Your task to perform on an android device: Go to internet settings Image 0: 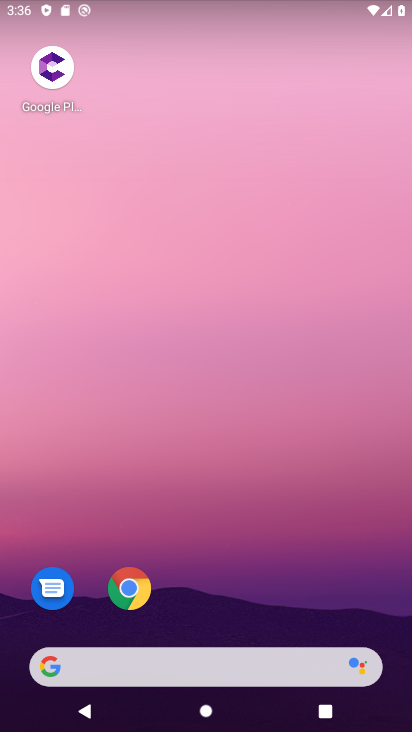
Step 0: drag from (311, 626) to (259, 77)
Your task to perform on an android device: Go to internet settings Image 1: 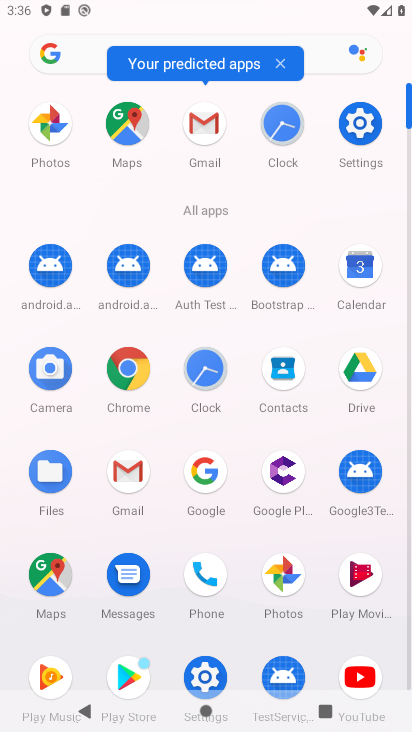
Step 1: click (354, 114)
Your task to perform on an android device: Go to internet settings Image 2: 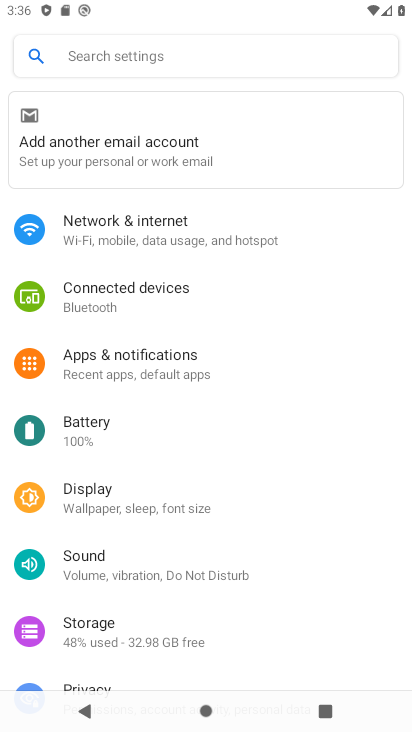
Step 2: click (299, 245)
Your task to perform on an android device: Go to internet settings Image 3: 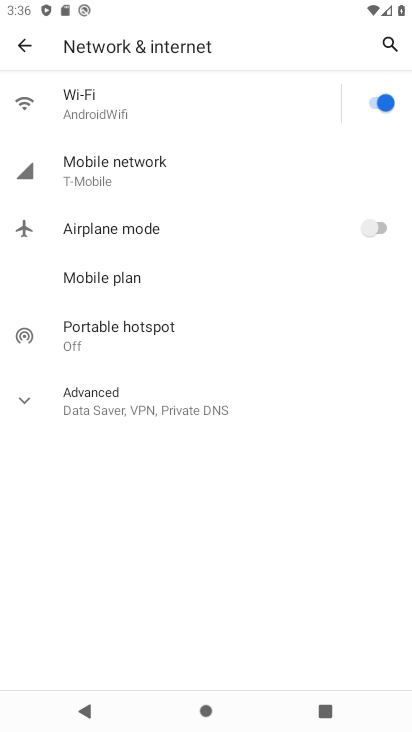
Step 3: task complete